Your task to perform on an android device: change the clock display to digital Image 0: 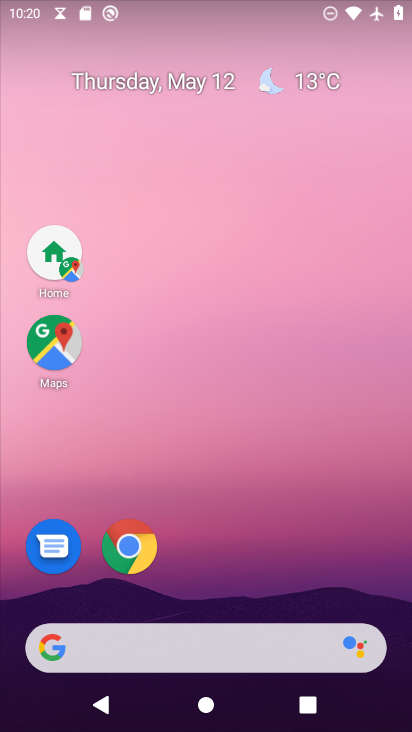
Step 0: press home button
Your task to perform on an android device: change the clock display to digital Image 1: 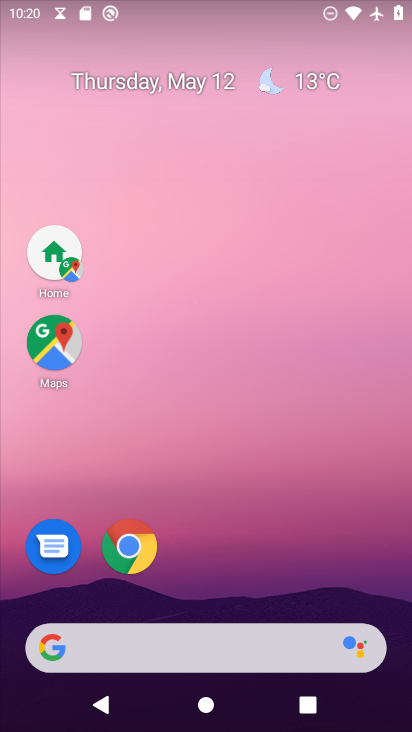
Step 1: drag from (155, 659) to (292, 193)
Your task to perform on an android device: change the clock display to digital Image 2: 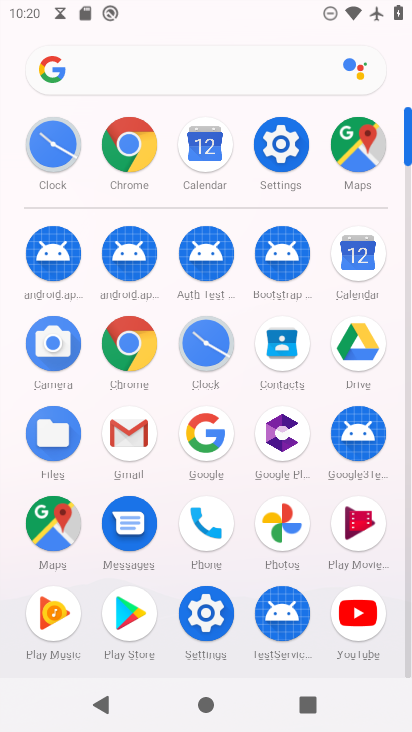
Step 2: click (209, 350)
Your task to perform on an android device: change the clock display to digital Image 3: 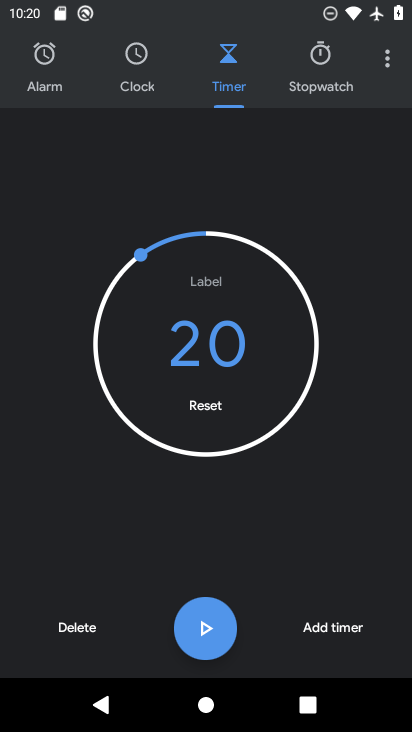
Step 3: click (387, 65)
Your task to perform on an android device: change the clock display to digital Image 4: 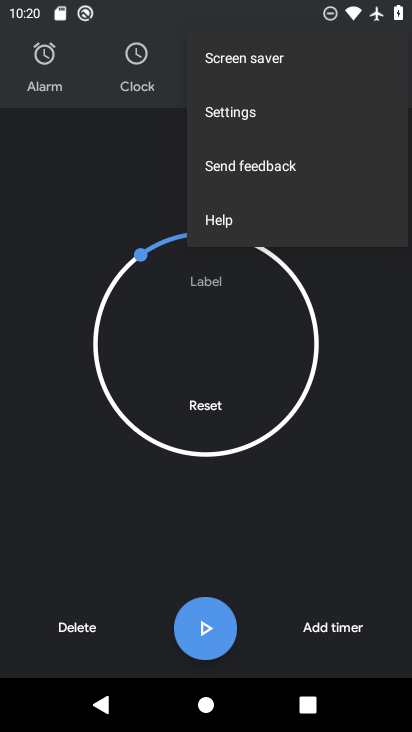
Step 4: click (229, 114)
Your task to perform on an android device: change the clock display to digital Image 5: 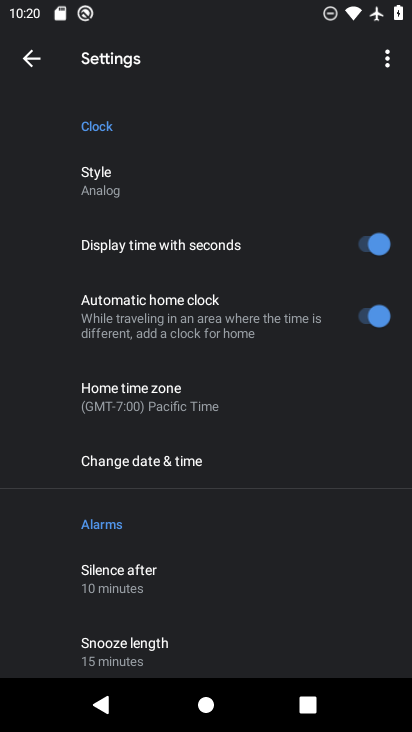
Step 5: click (114, 189)
Your task to perform on an android device: change the clock display to digital Image 6: 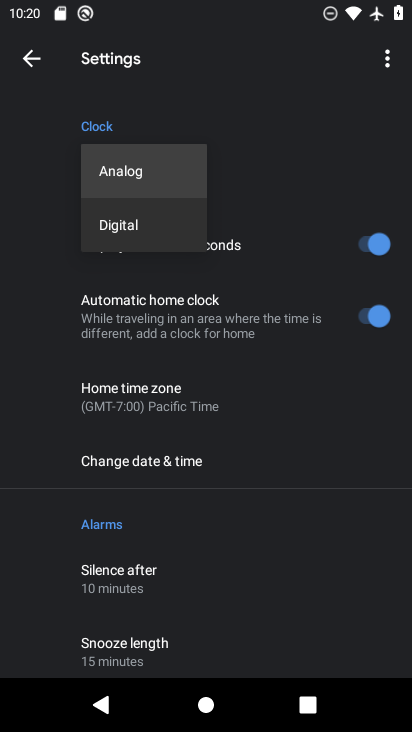
Step 6: click (144, 234)
Your task to perform on an android device: change the clock display to digital Image 7: 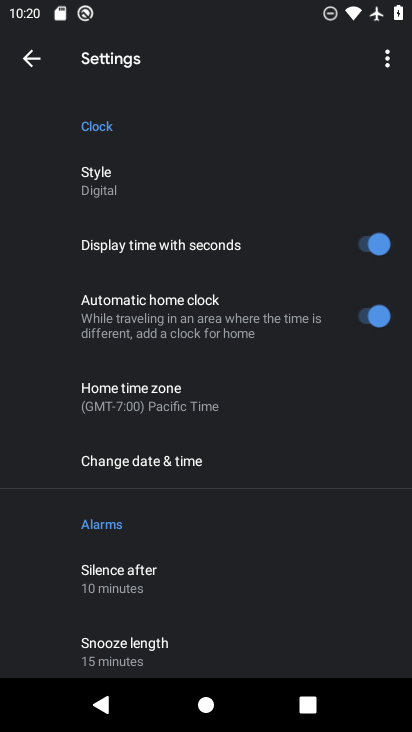
Step 7: task complete